Your task to perform on an android device: Go to Yahoo.com Image 0: 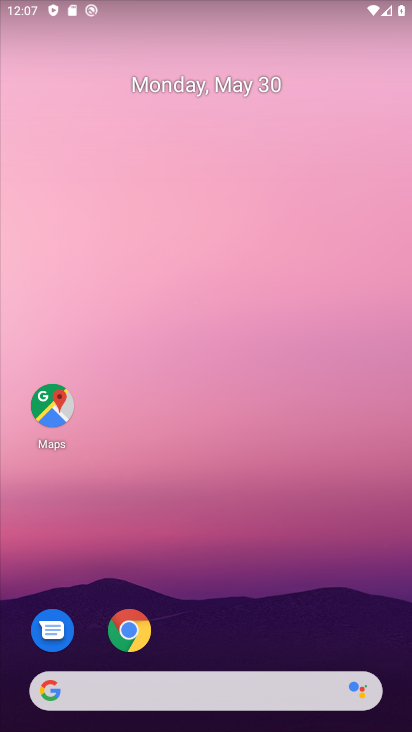
Step 0: click (123, 643)
Your task to perform on an android device: Go to Yahoo.com Image 1: 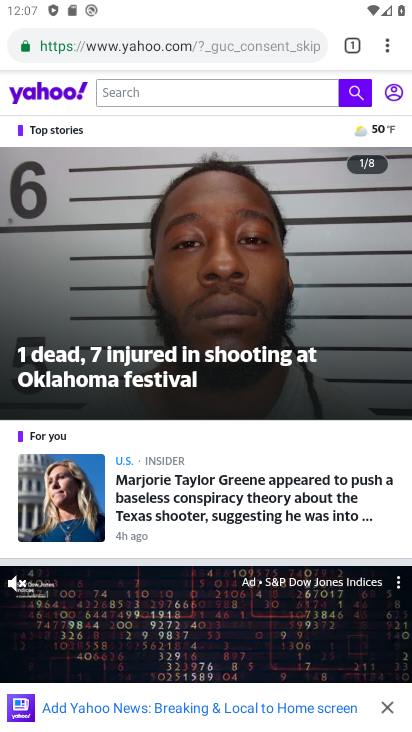
Step 1: task complete